Your task to perform on an android device: Open Google Chrome and click the shortcut for Amazon.com Image 0: 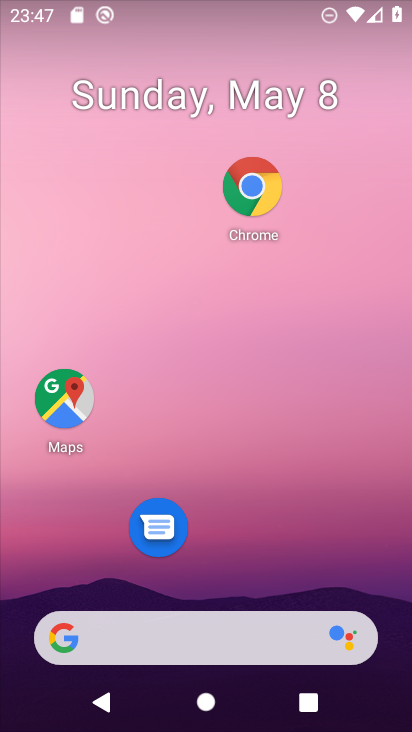
Step 0: drag from (258, 428) to (335, 169)
Your task to perform on an android device: Open Google Chrome and click the shortcut for Amazon.com Image 1: 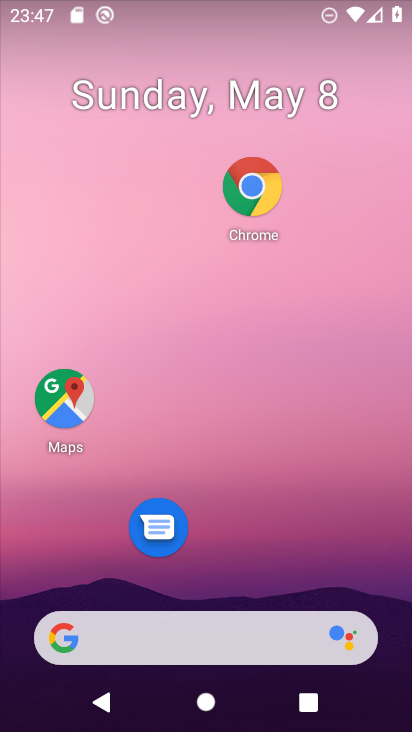
Step 1: drag from (267, 596) to (301, 271)
Your task to perform on an android device: Open Google Chrome and click the shortcut for Amazon.com Image 2: 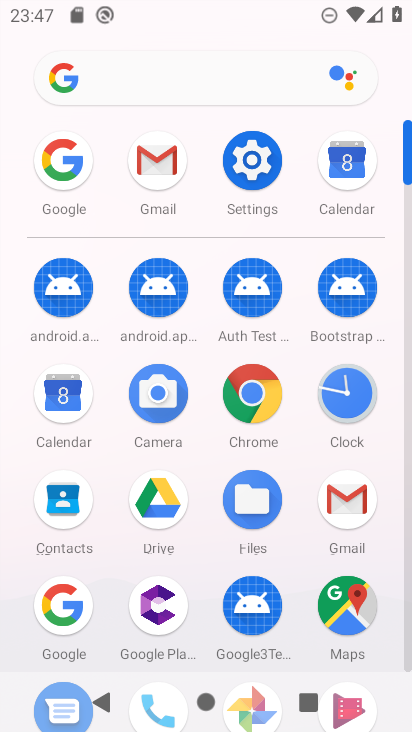
Step 2: click (243, 396)
Your task to perform on an android device: Open Google Chrome and click the shortcut for Amazon.com Image 3: 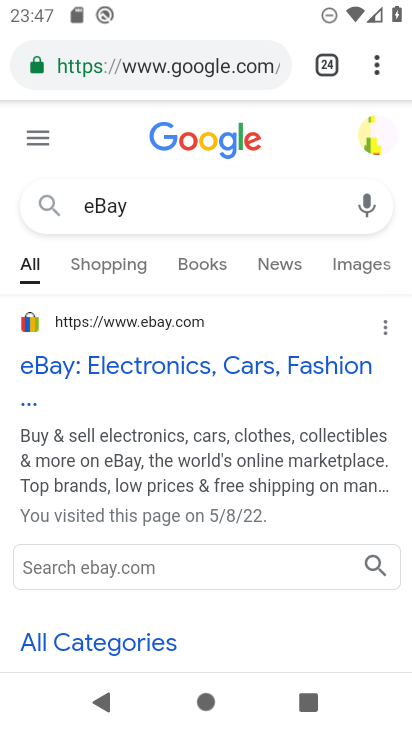
Step 3: click (368, 64)
Your task to perform on an android device: Open Google Chrome and click the shortcut for Amazon.com Image 4: 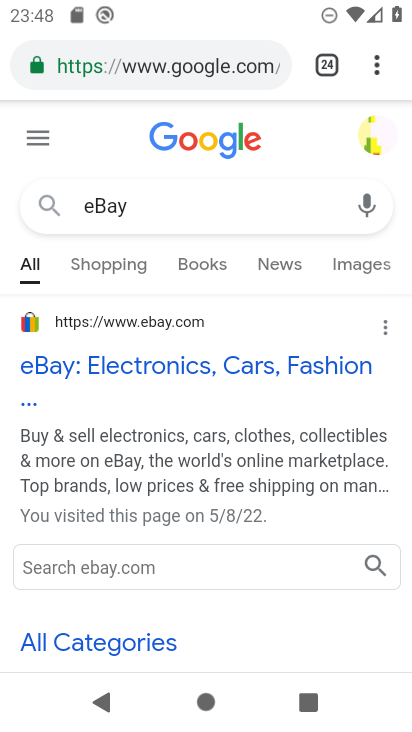
Step 4: click (366, 65)
Your task to perform on an android device: Open Google Chrome and click the shortcut for Amazon.com Image 5: 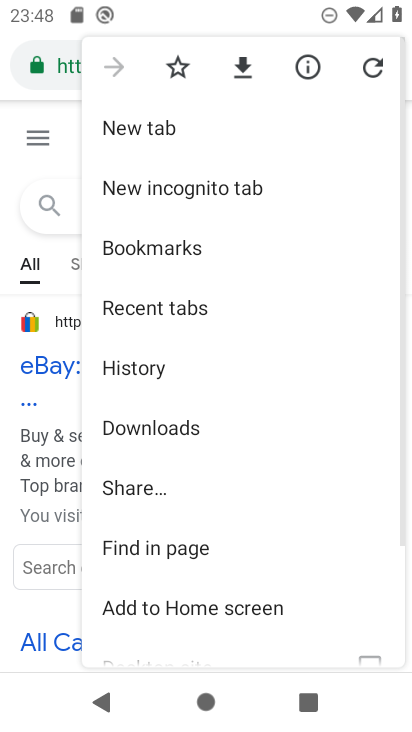
Step 5: click (206, 131)
Your task to perform on an android device: Open Google Chrome and click the shortcut for Amazon.com Image 6: 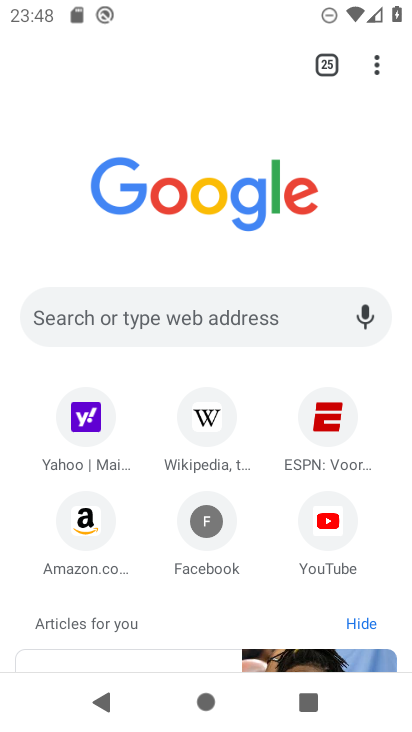
Step 6: click (88, 527)
Your task to perform on an android device: Open Google Chrome and click the shortcut for Amazon.com Image 7: 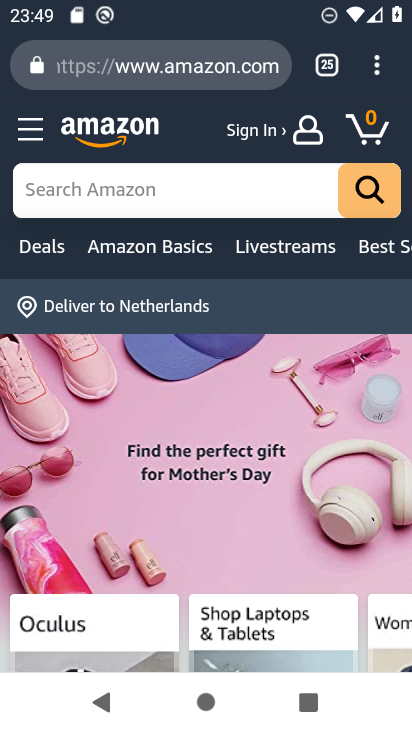
Step 7: task complete